Your task to perform on an android device: change the clock style Image 0: 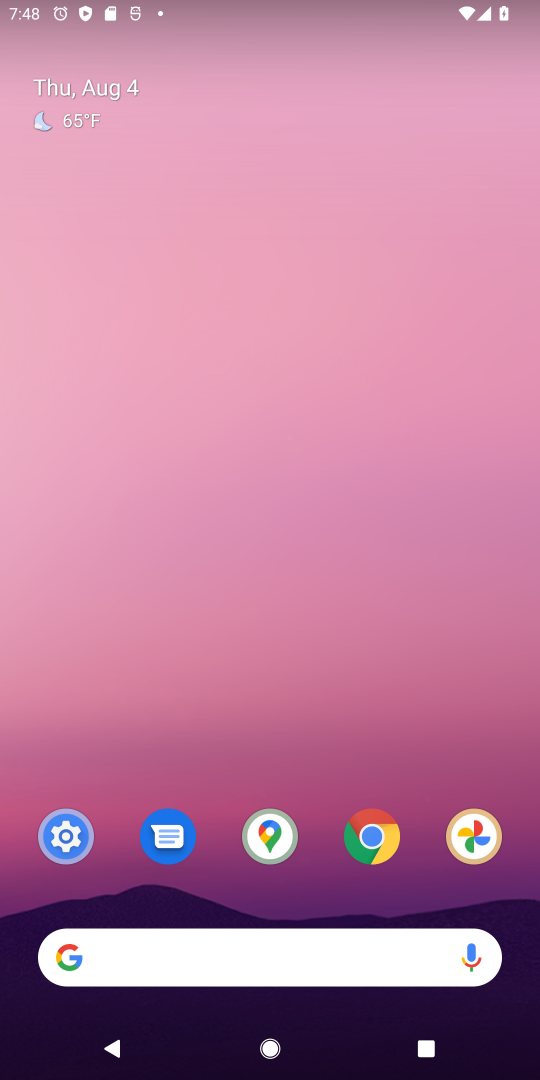
Step 0: drag from (207, 865) to (289, 48)
Your task to perform on an android device: change the clock style Image 1: 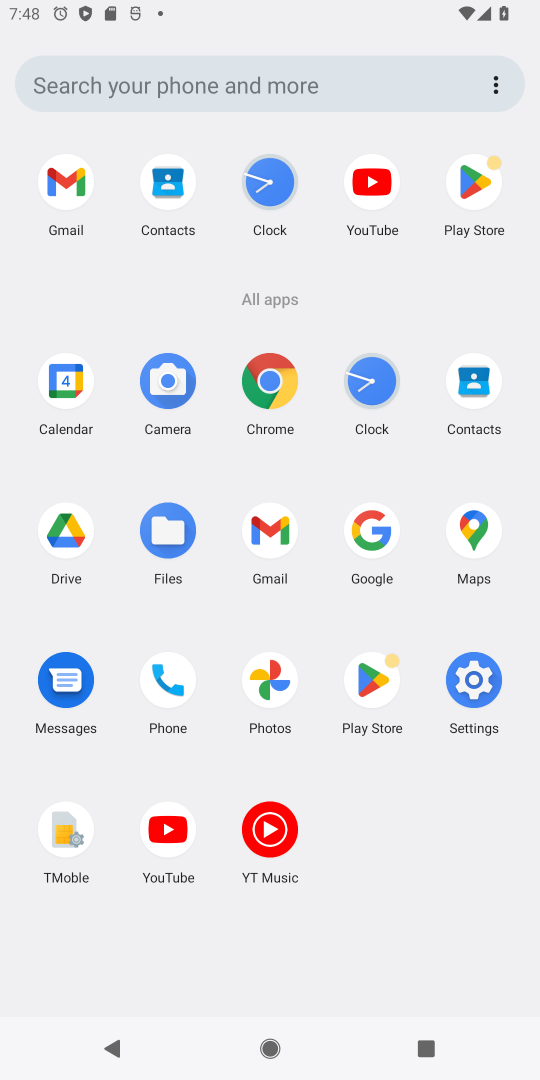
Step 1: click (281, 189)
Your task to perform on an android device: change the clock style Image 2: 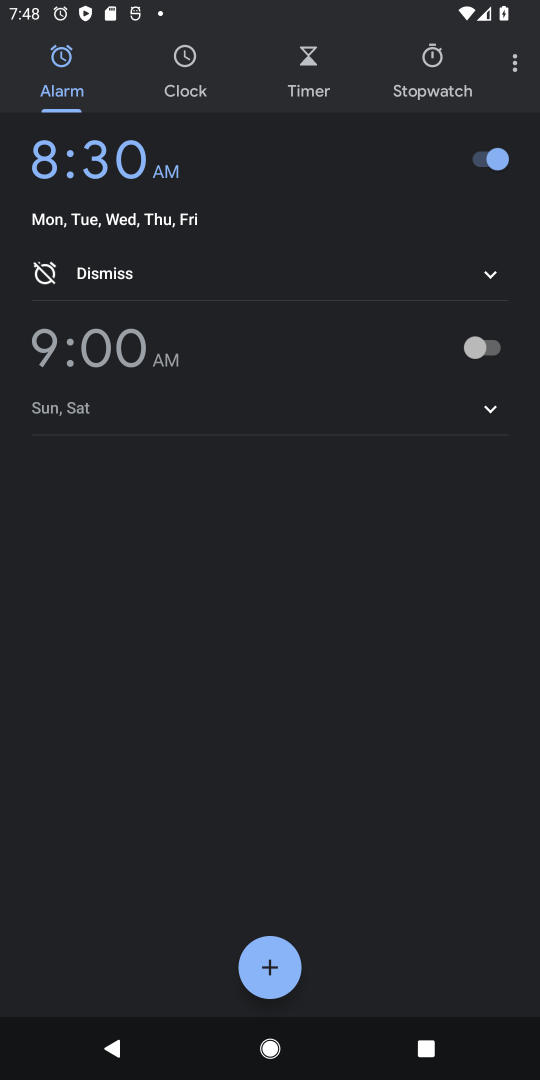
Step 2: click (503, 61)
Your task to perform on an android device: change the clock style Image 3: 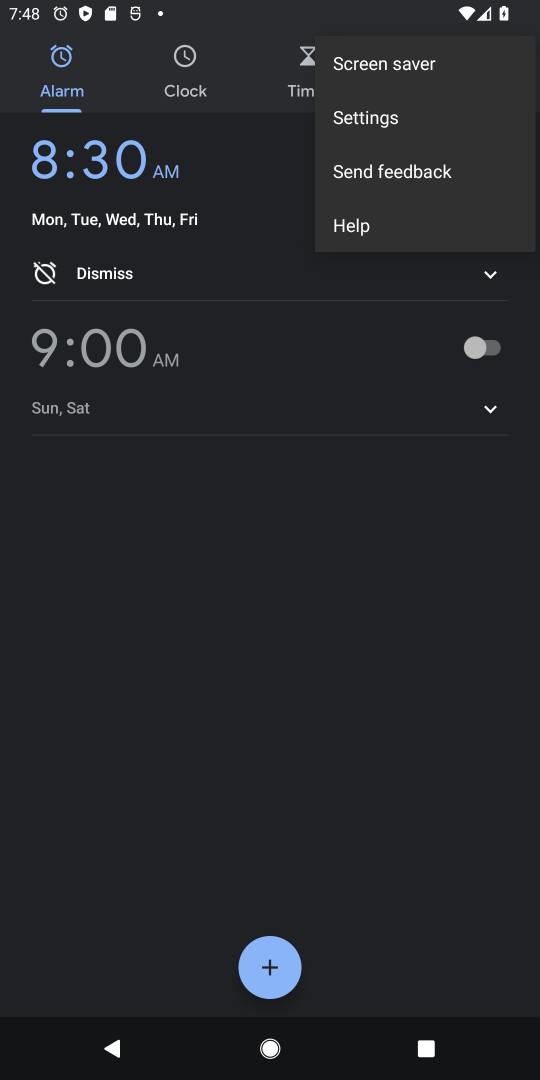
Step 3: click (428, 122)
Your task to perform on an android device: change the clock style Image 4: 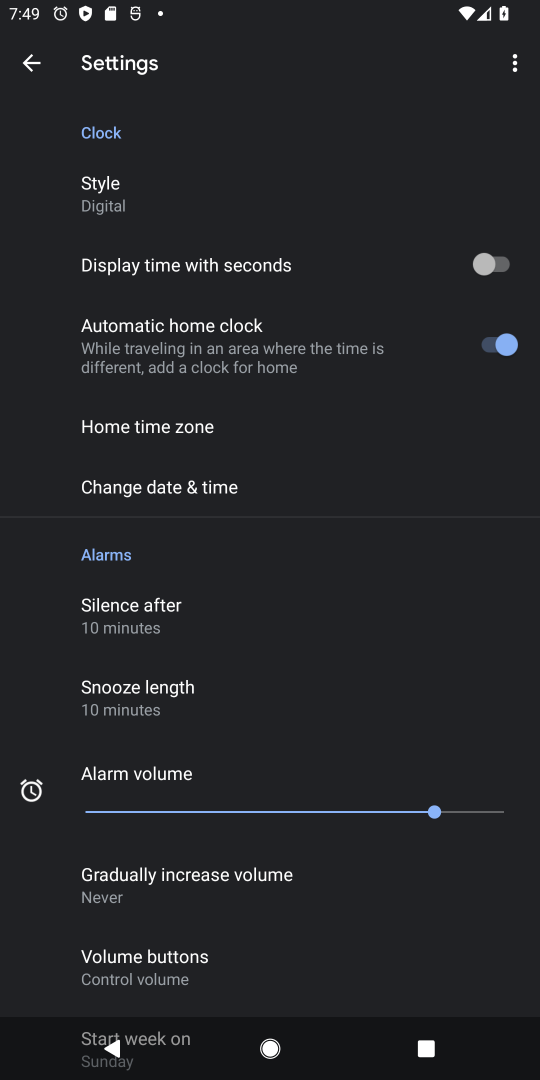
Step 4: click (226, 196)
Your task to perform on an android device: change the clock style Image 5: 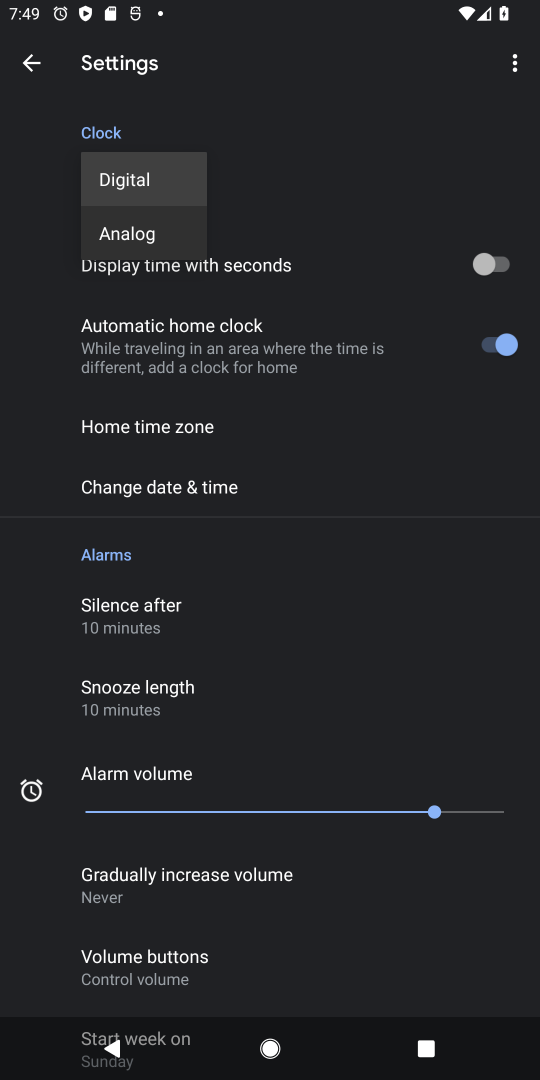
Step 5: click (125, 239)
Your task to perform on an android device: change the clock style Image 6: 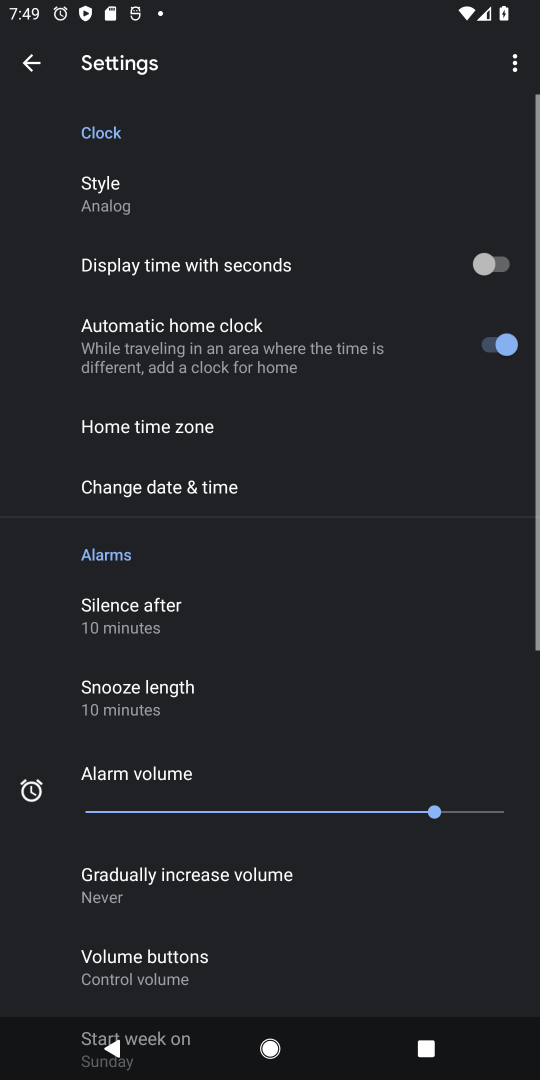
Step 6: task complete